Your task to perform on an android device: Search for logitech g910 on walmart, select the first entry, add it to the cart, then select checkout. Image 0: 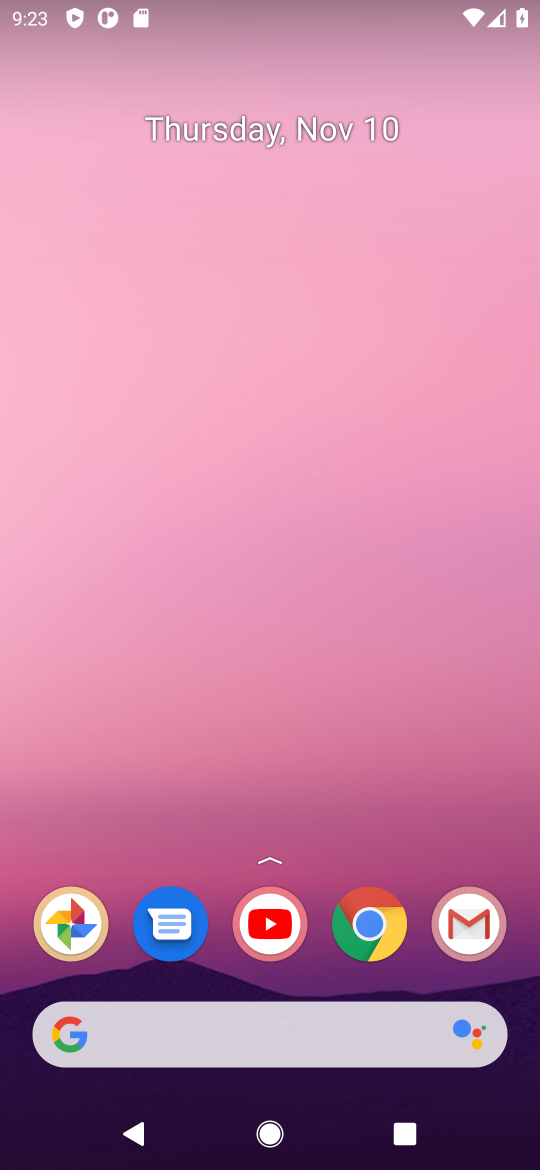
Step 0: click (364, 920)
Your task to perform on an android device: Search for logitech g910 on walmart, select the first entry, add it to the cart, then select checkout. Image 1: 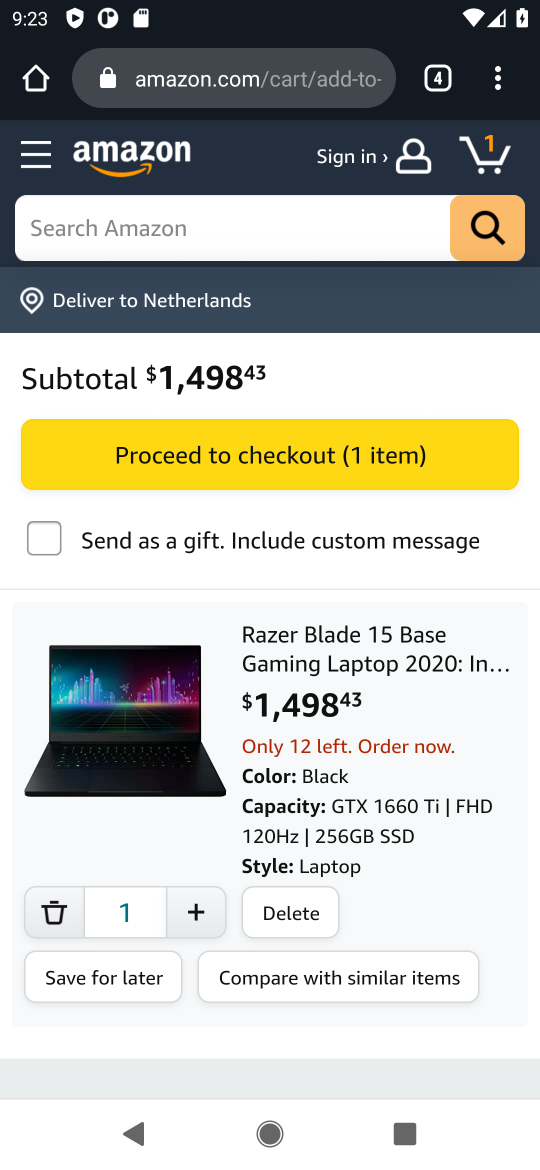
Step 1: click (196, 90)
Your task to perform on an android device: Search for logitech g910 on walmart, select the first entry, add it to the cart, then select checkout. Image 2: 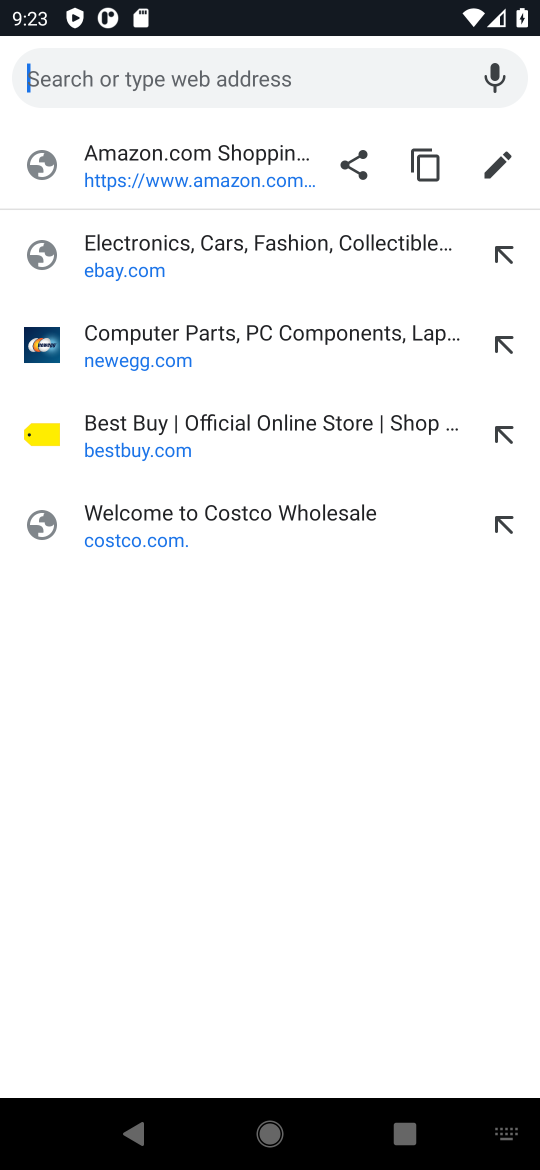
Step 2: click (158, 94)
Your task to perform on an android device: Search for logitech g910 on walmart, select the first entry, add it to the cart, then select checkout. Image 3: 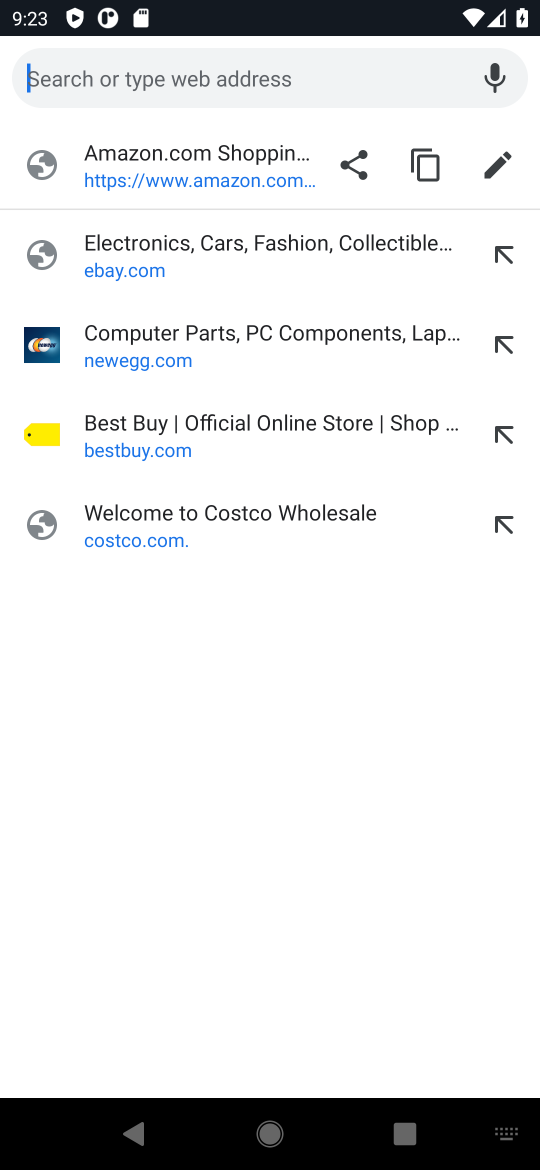
Step 3: type "walmart"
Your task to perform on an android device: Search for logitech g910 on walmart, select the first entry, add it to the cart, then select checkout. Image 4: 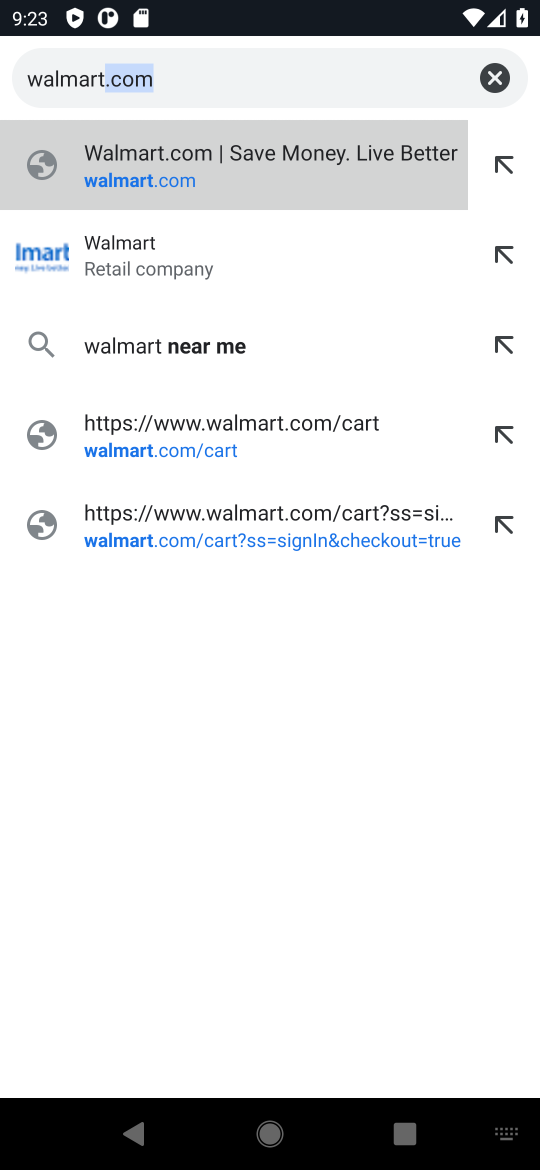
Step 4: click (148, 189)
Your task to perform on an android device: Search for logitech g910 on walmart, select the first entry, add it to the cart, then select checkout. Image 5: 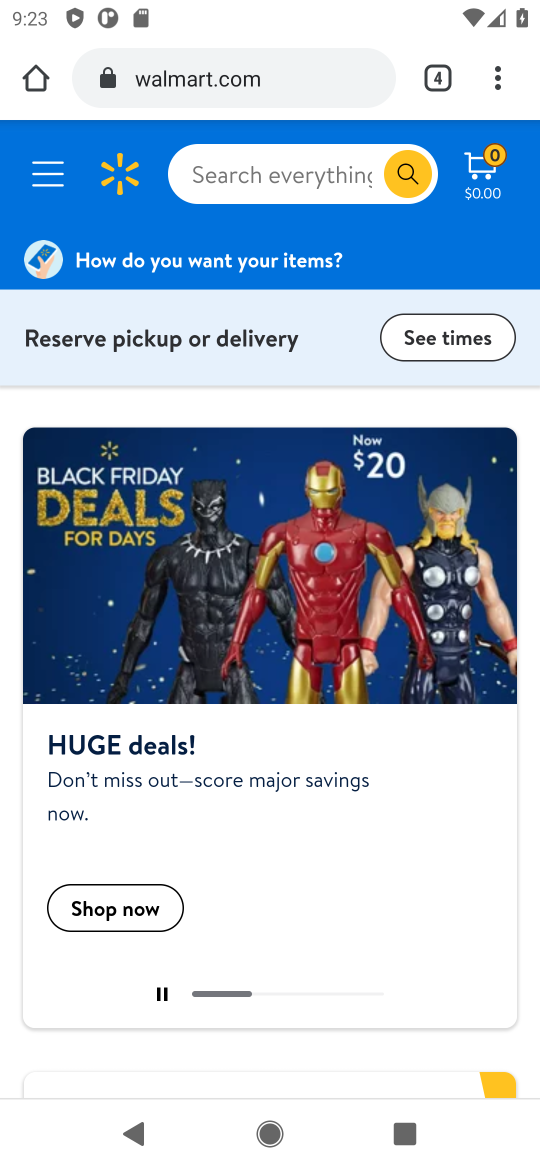
Step 5: click (228, 181)
Your task to perform on an android device: Search for logitech g910 on walmart, select the first entry, add it to the cart, then select checkout. Image 6: 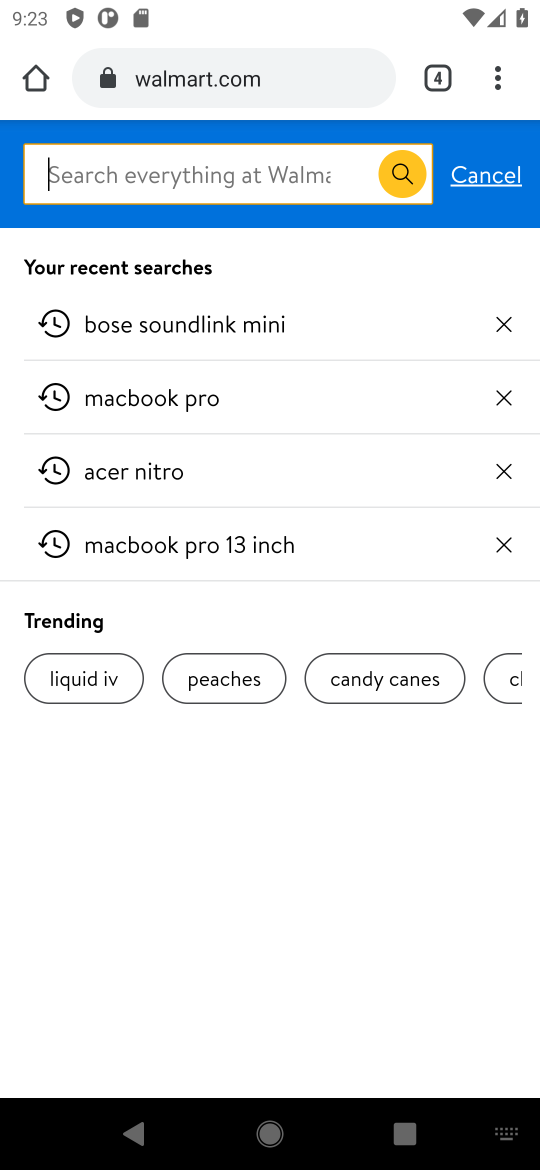
Step 6: type " logitech g910"
Your task to perform on an android device: Search for logitech g910 on walmart, select the first entry, add it to the cart, then select checkout. Image 7: 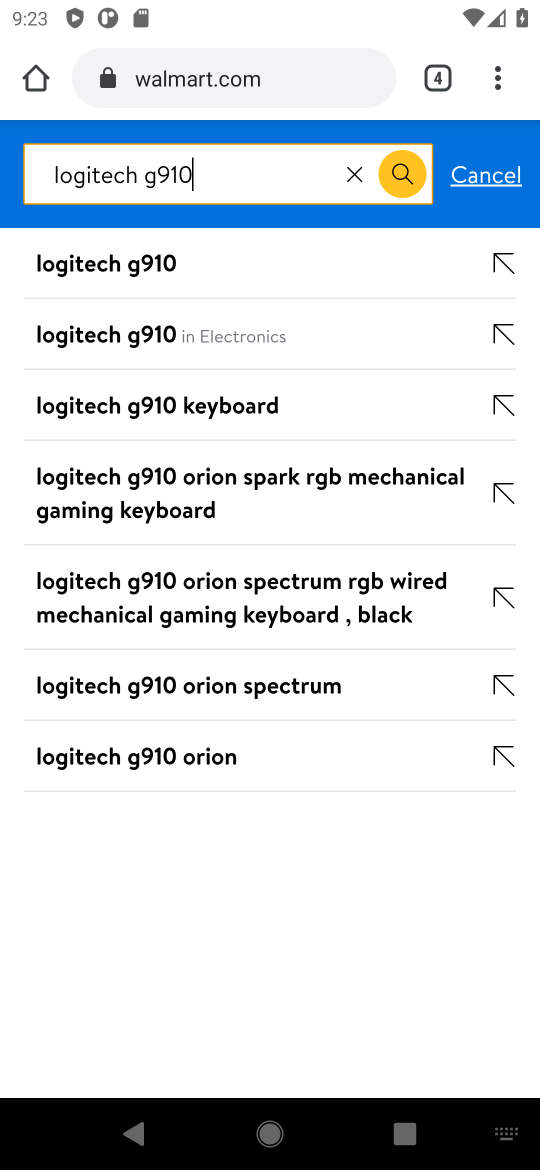
Step 7: click (117, 275)
Your task to perform on an android device: Search for logitech g910 on walmart, select the first entry, add it to the cart, then select checkout. Image 8: 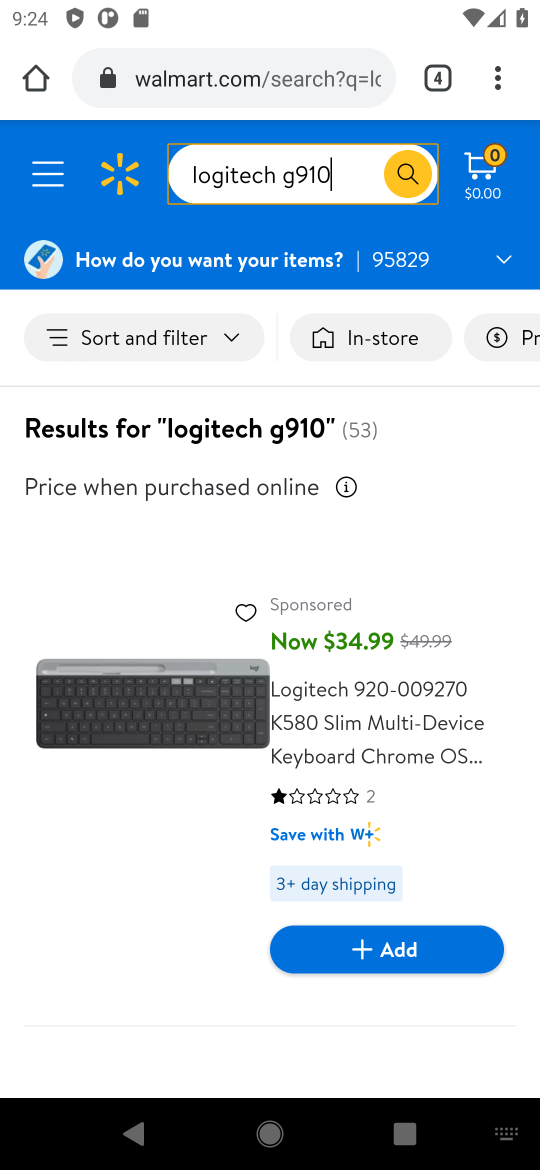
Step 8: task complete